Your task to perform on an android device: toggle location history Image 0: 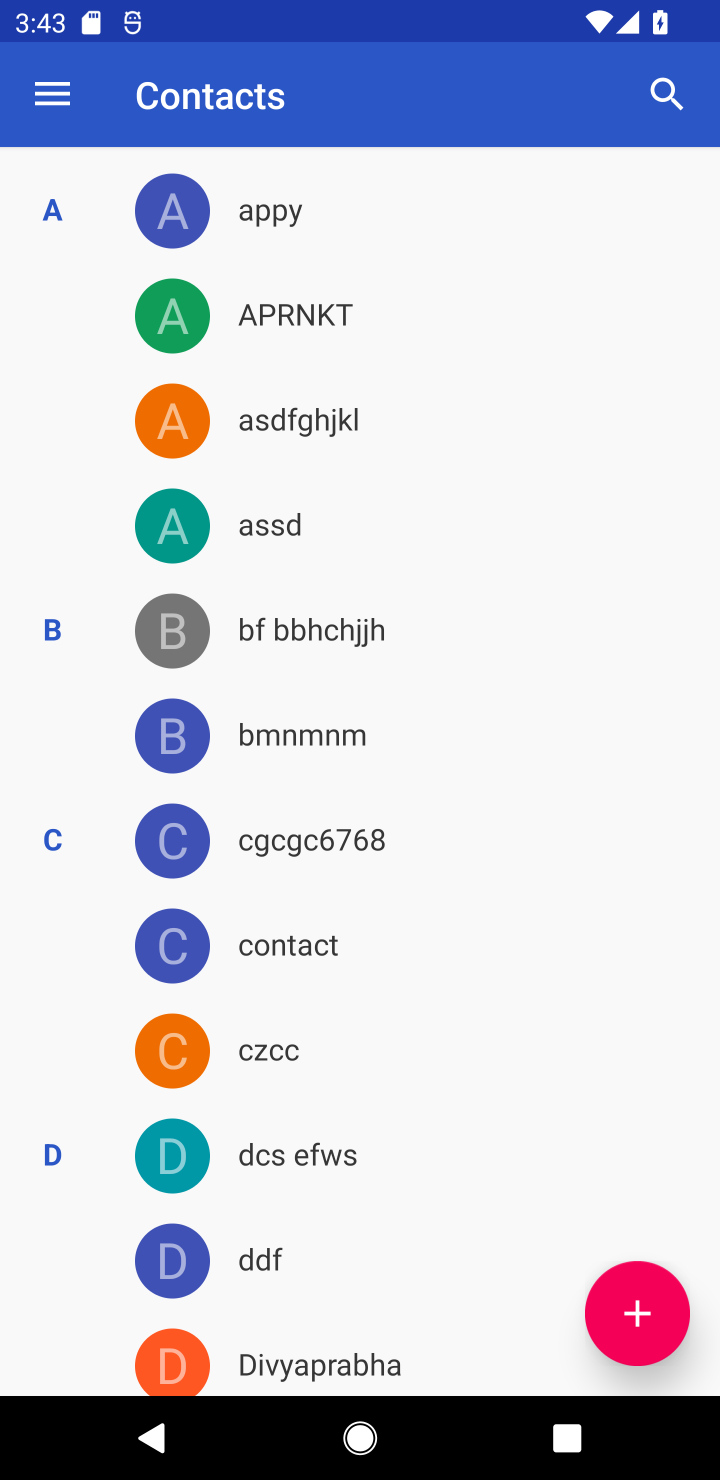
Step 0: press back button
Your task to perform on an android device: toggle location history Image 1: 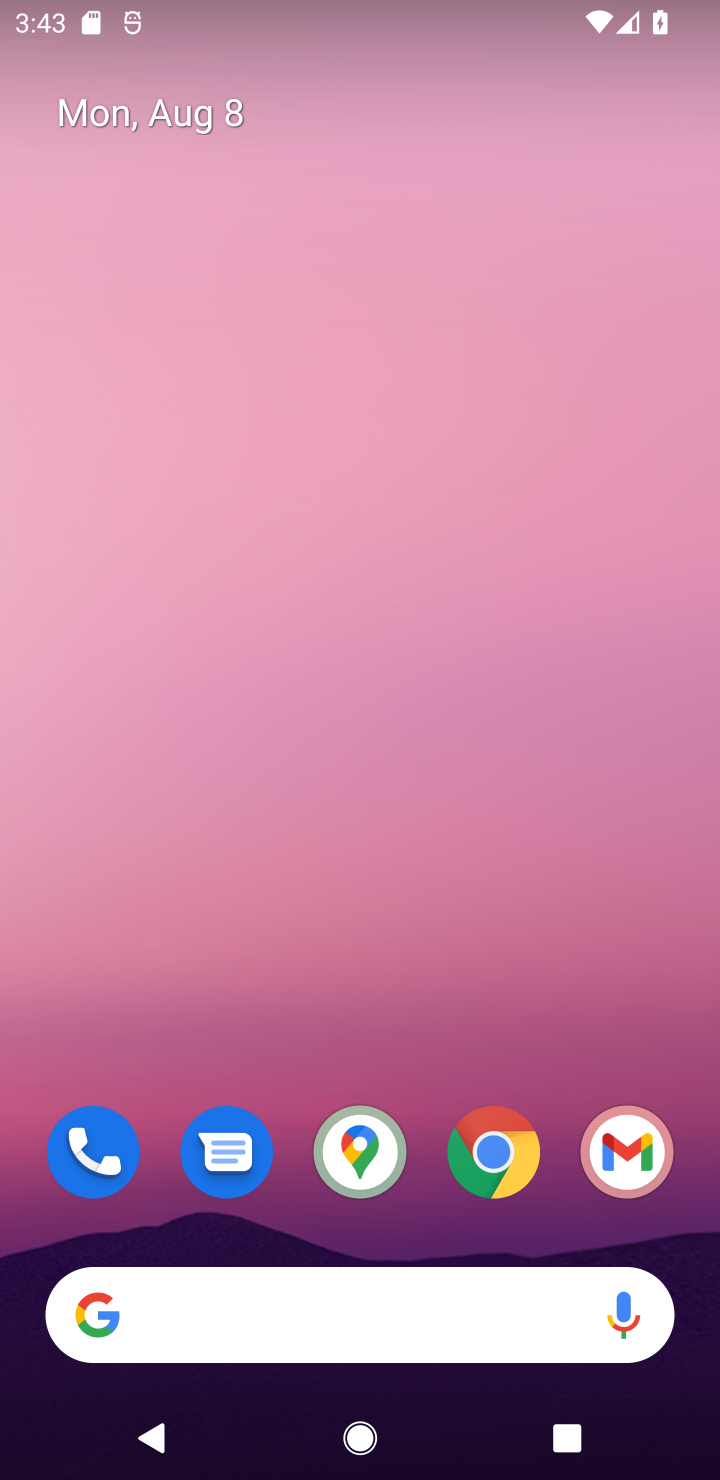
Step 1: drag from (328, 1211) to (587, 4)
Your task to perform on an android device: toggle location history Image 2: 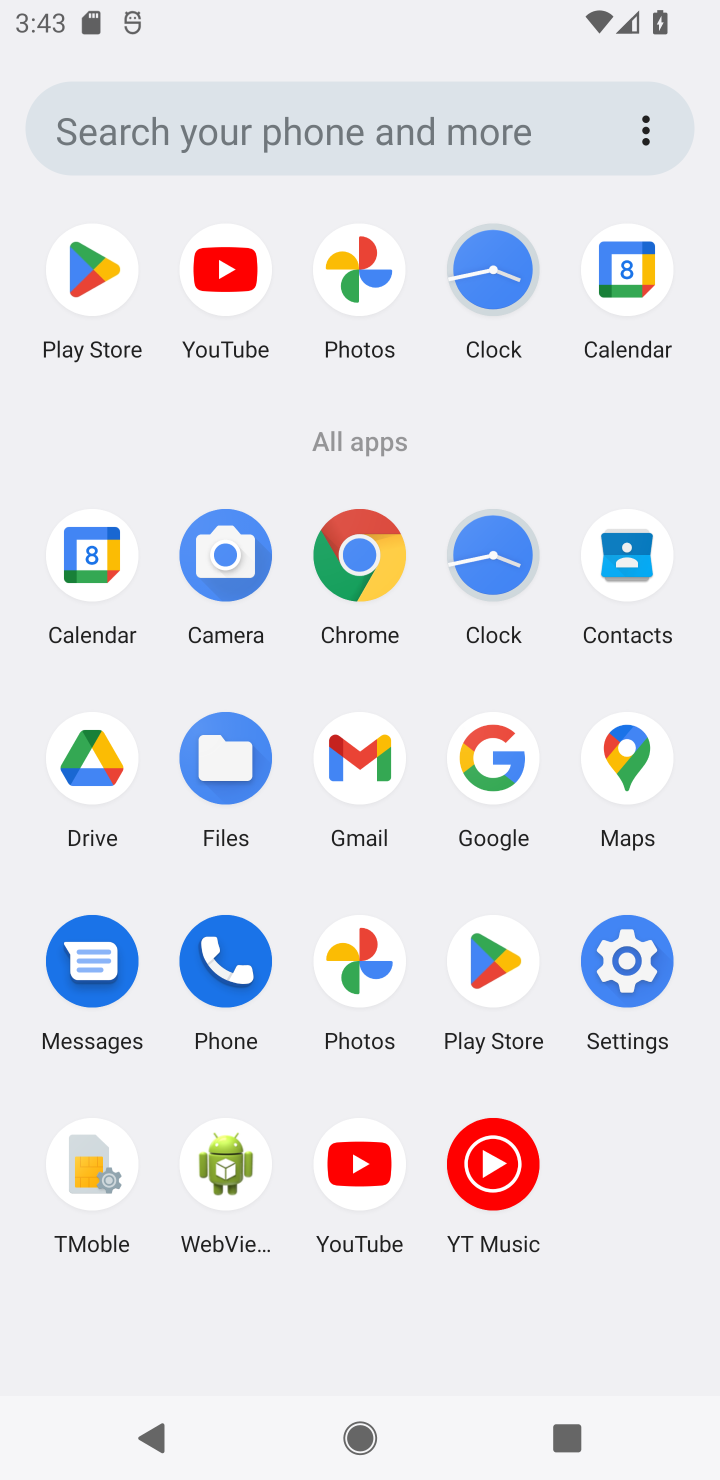
Step 2: click (636, 1005)
Your task to perform on an android device: toggle location history Image 3: 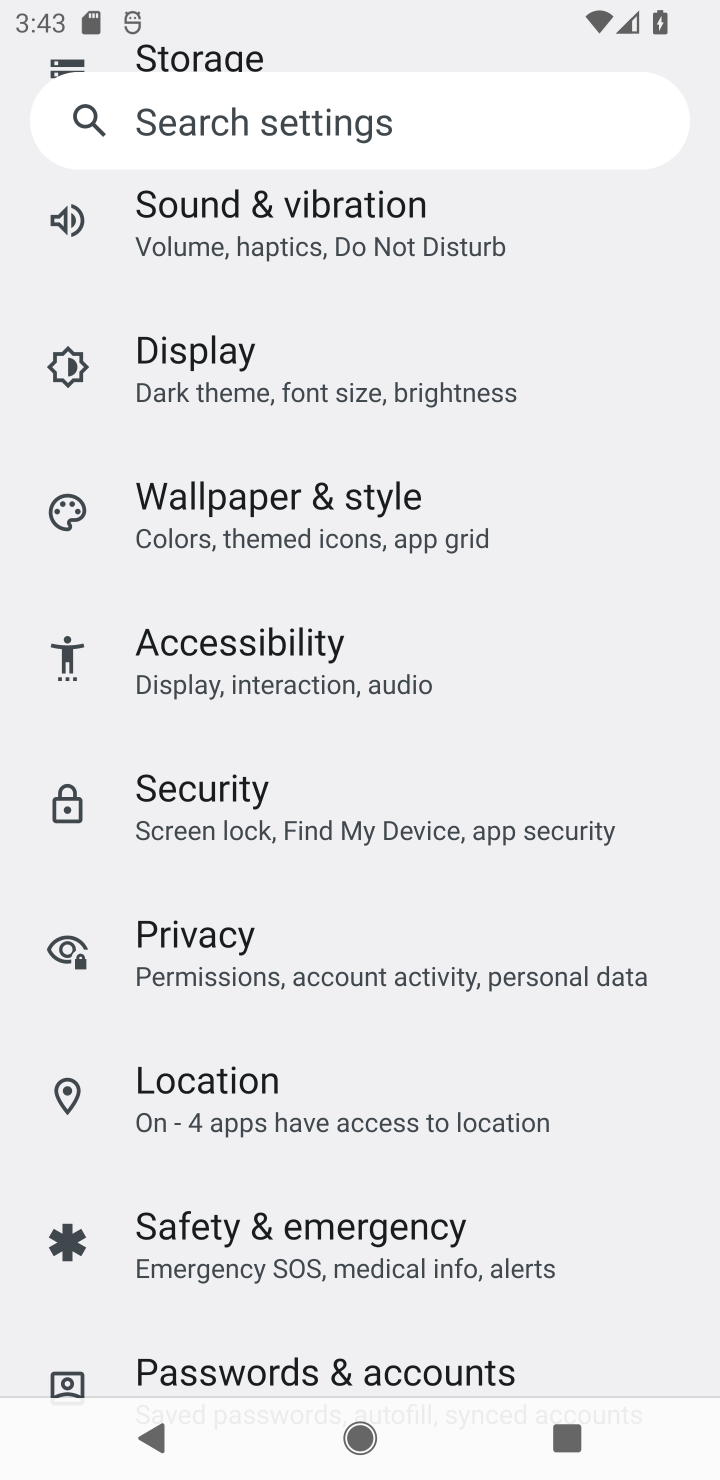
Step 3: click (267, 1103)
Your task to perform on an android device: toggle location history Image 4: 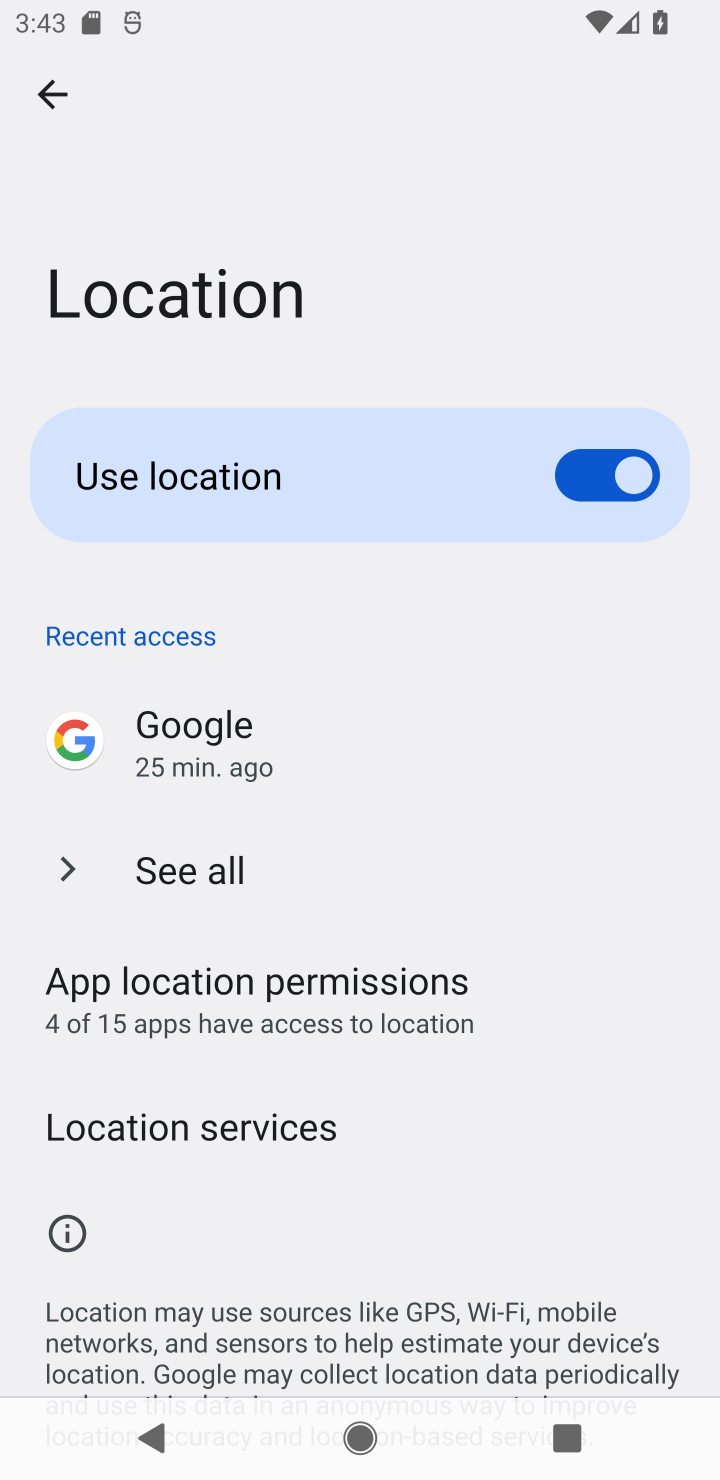
Step 4: drag from (309, 1320) to (518, 383)
Your task to perform on an android device: toggle location history Image 5: 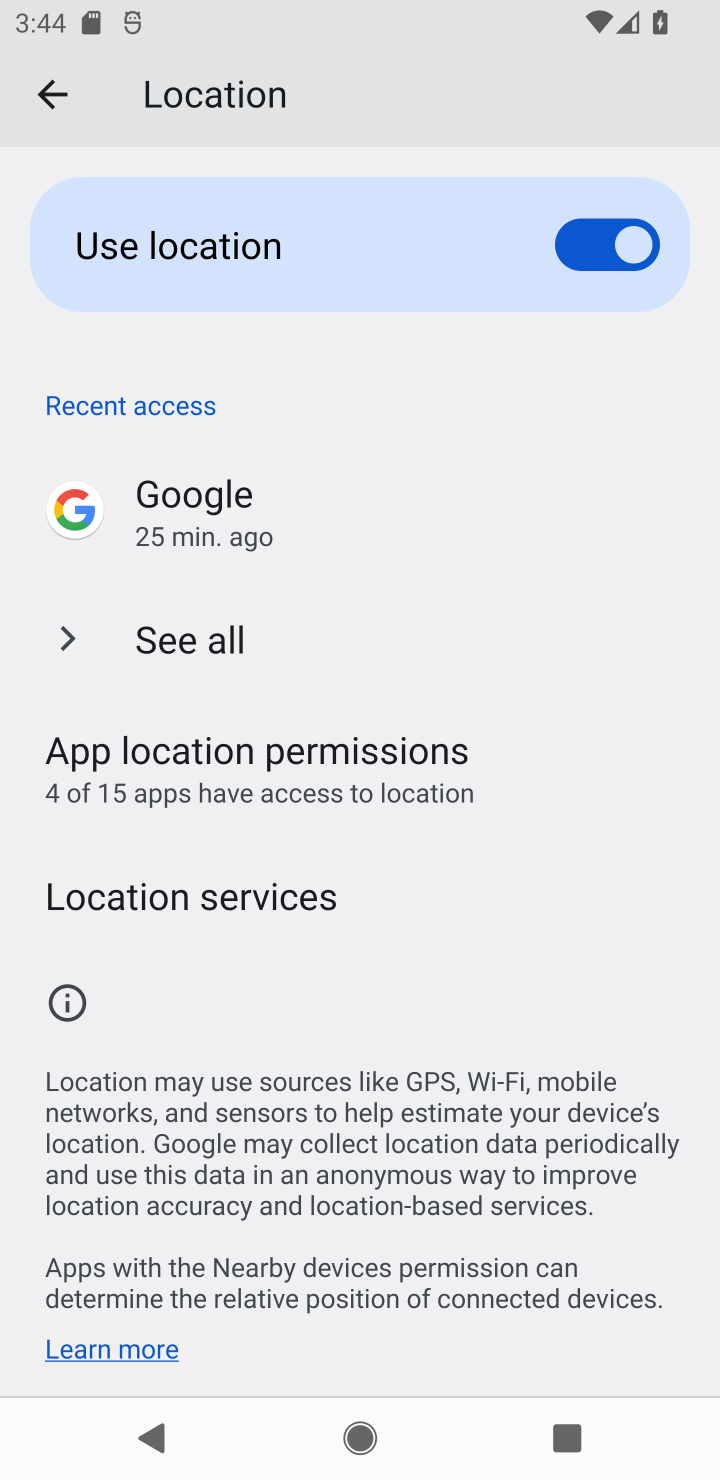
Step 5: click (203, 758)
Your task to perform on an android device: toggle location history Image 6: 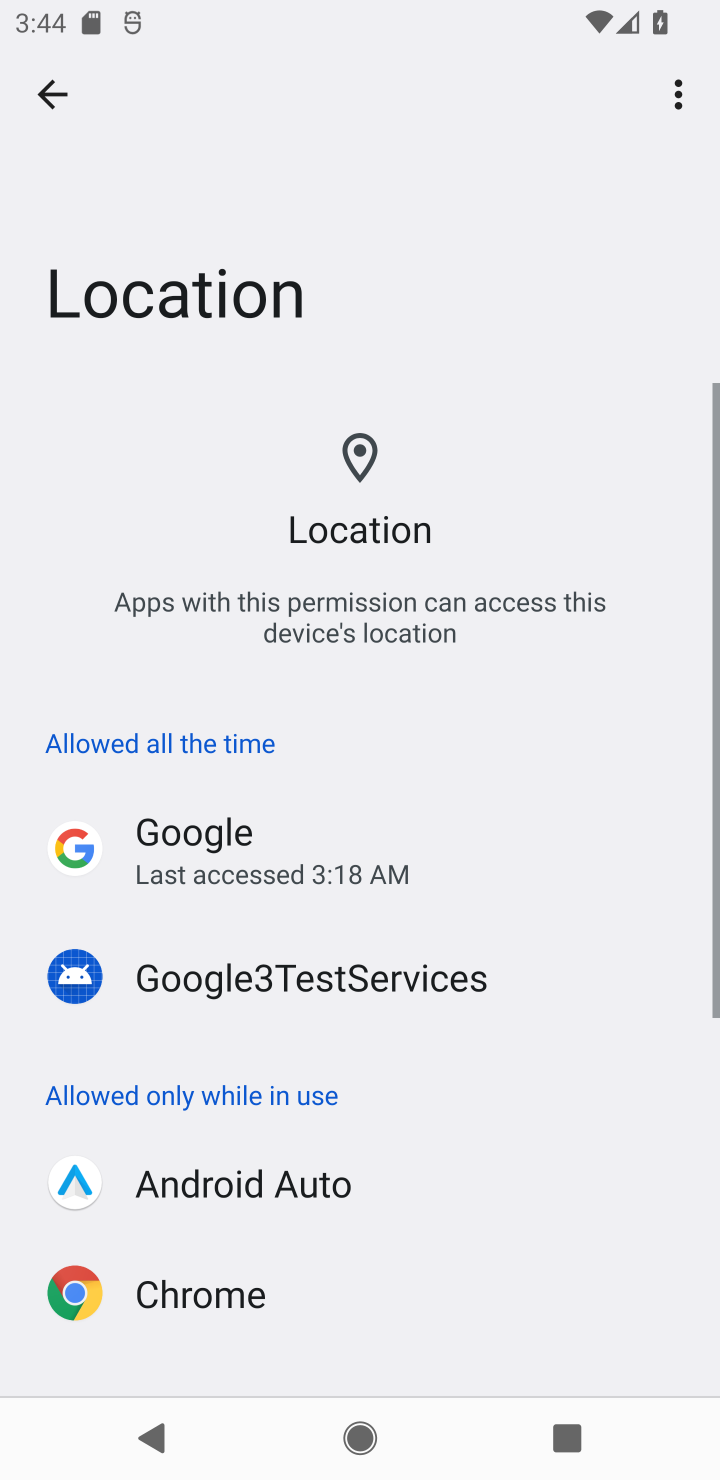
Step 6: click (29, 88)
Your task to perform on an android device: toggle location history Image 7: 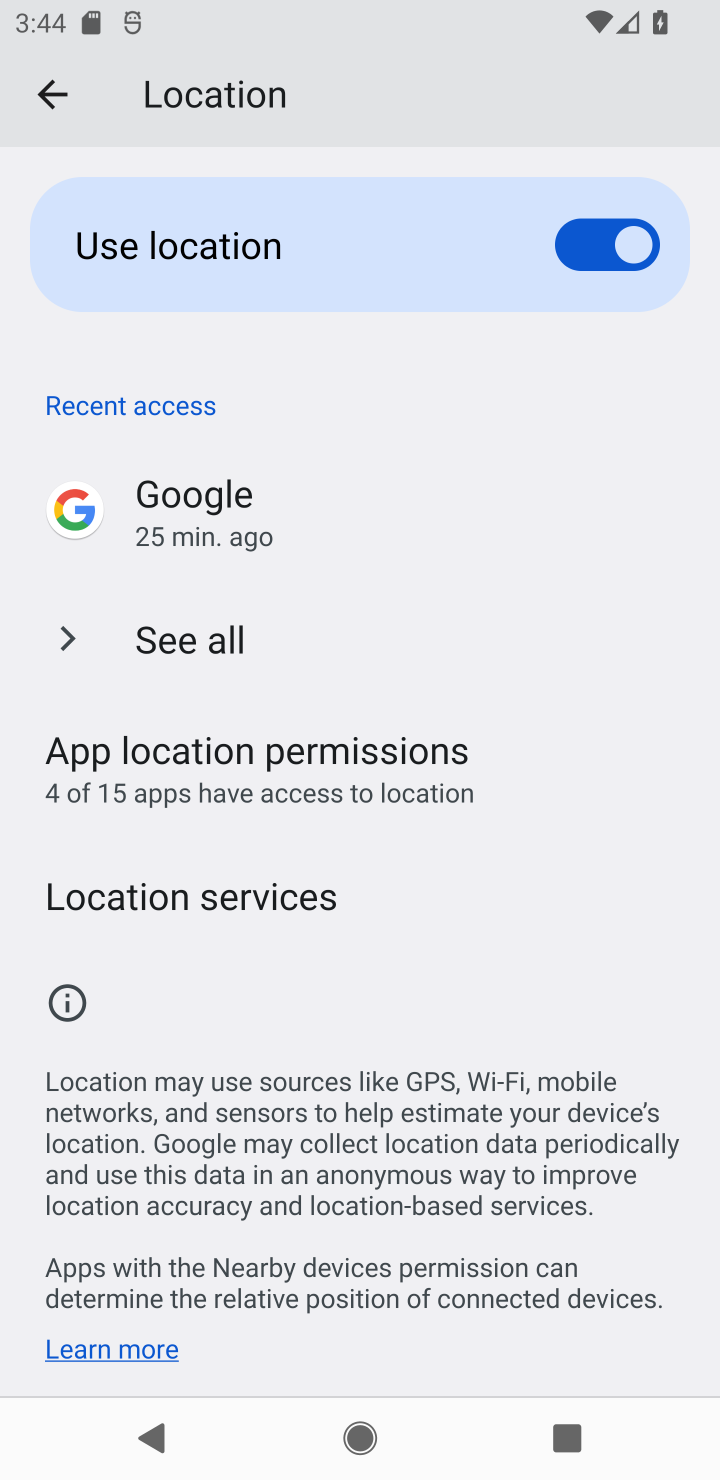
Step 7: click (138, 911)
Your task to perform on an android device: toggle location history Image 8: 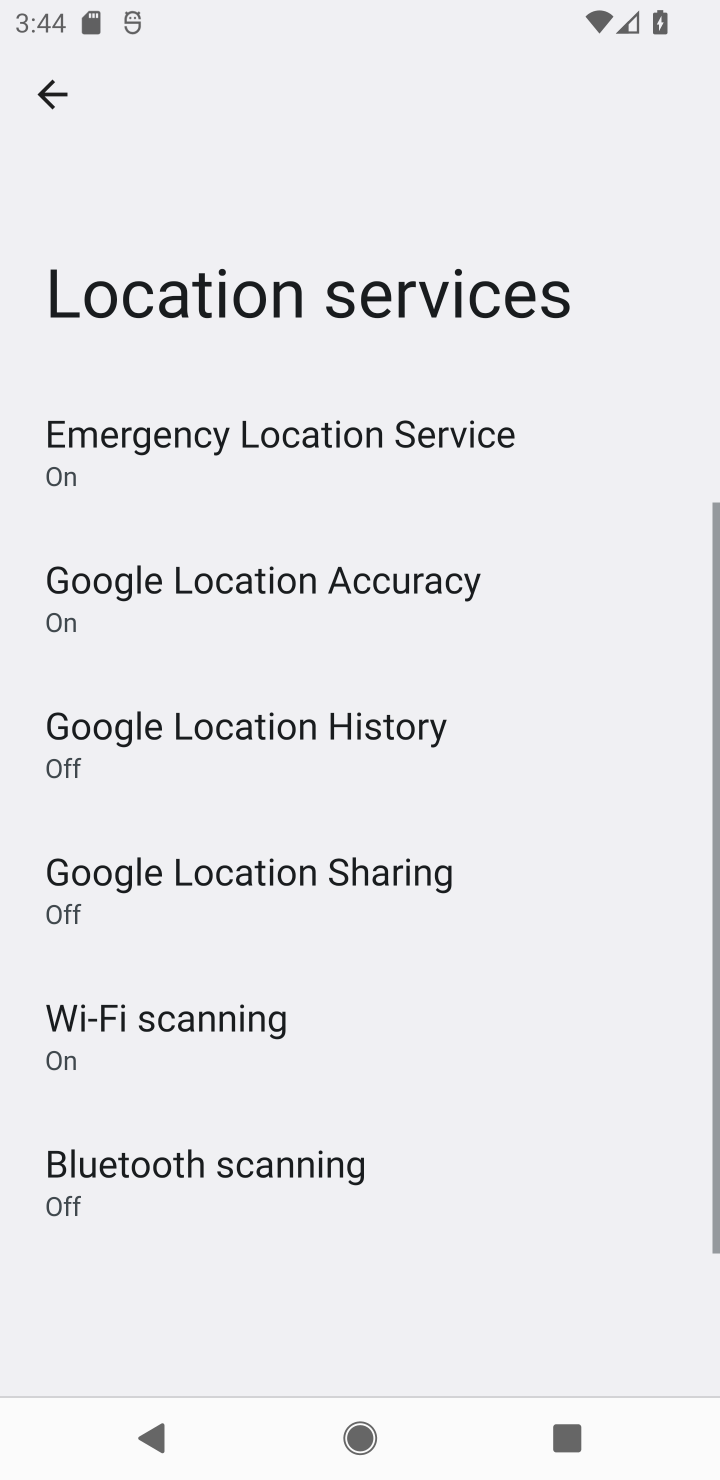
Step 8: click (187, 726)
Your task to perform on an android device: toggle location history Image 9: 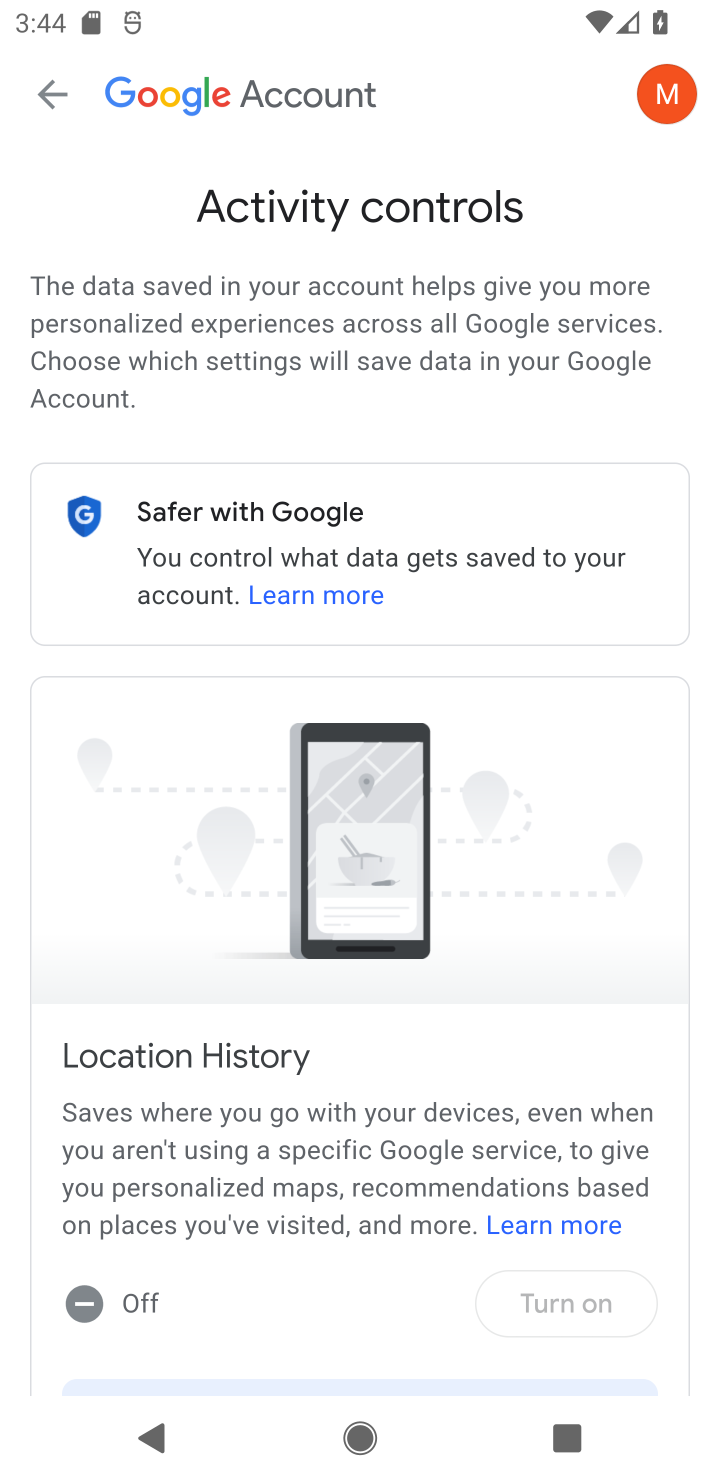
Step 9: task complete